Your task to perform on an android device: Open ESPN.com Image 0: 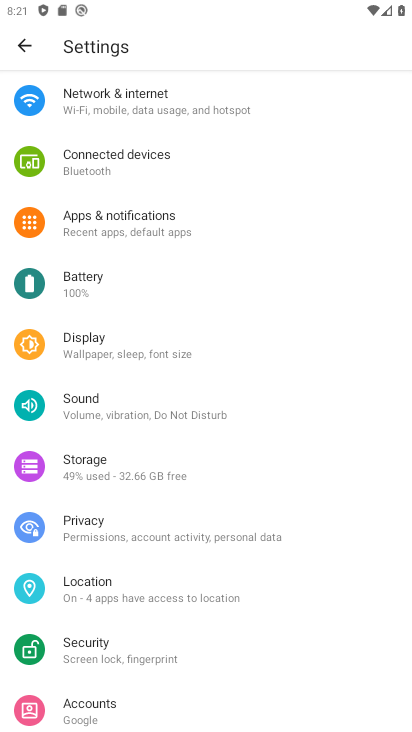
Step 0: press home button
Your task to perform on an android device: Open ESPN.com Image 1: 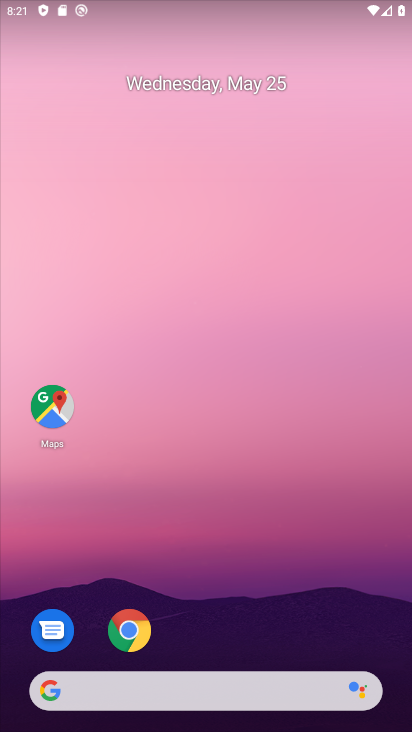
Step 1: click (123, 634)
Your task to perform on an android device: Open ESPN.com Image 2: 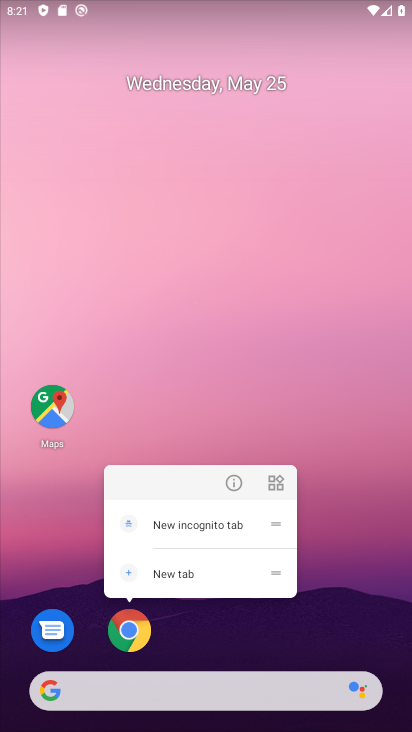
Step 2: click (123, 633)
Your task to perform on an android device: Open ESPN.com Image 3: 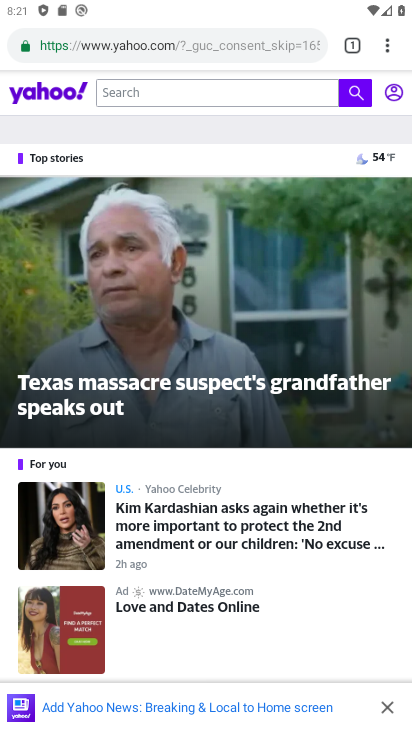
Step 3: drag from (388, 37) to (347, 96)
Your task to perform on an android device: Open ESPN.com Image 4: 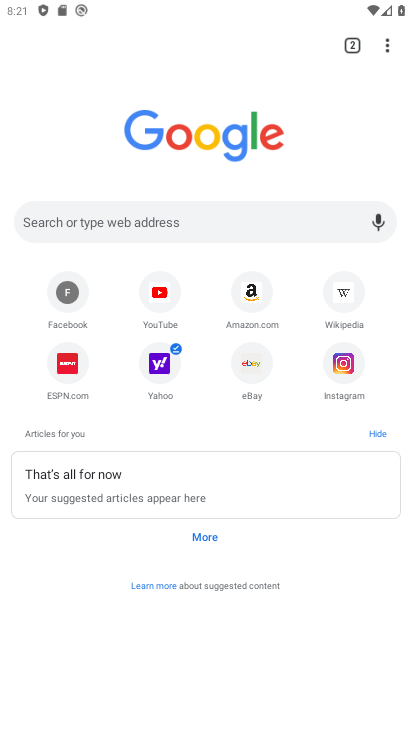
Step 4: click (54, 368)
Your task to perform on an android device: Open ESPN.com Image 5: 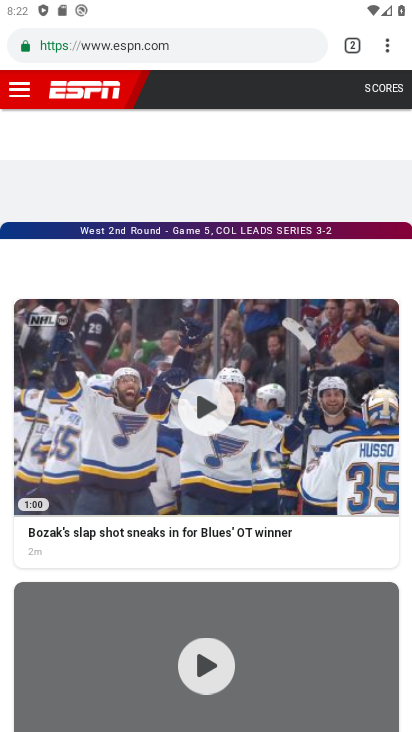
Step 5: task complete